Your task to perform on an android device: Show me popular games on the Play Store Image 0: 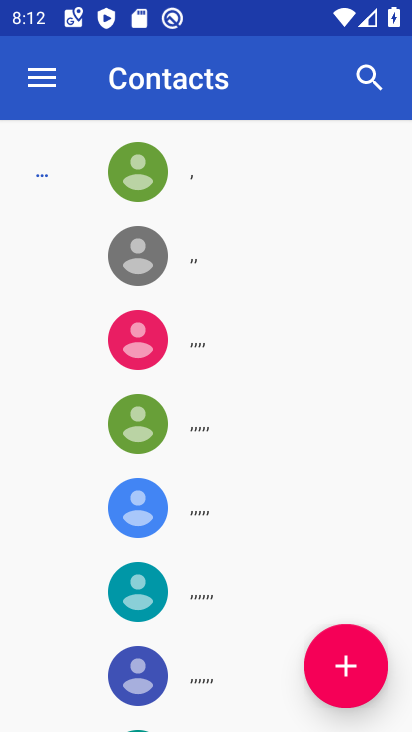
Step 0: press home button
Your task to perform on an android device: Show me popular games on the Play Store Image 1: 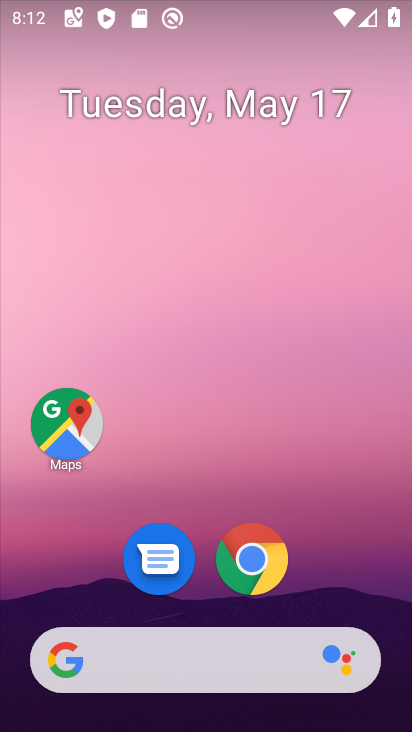
Step 1: drag from (169, 715) to (177, 215)
Your task to perform on an android device: Show me popular games on the Play Store Image 2: 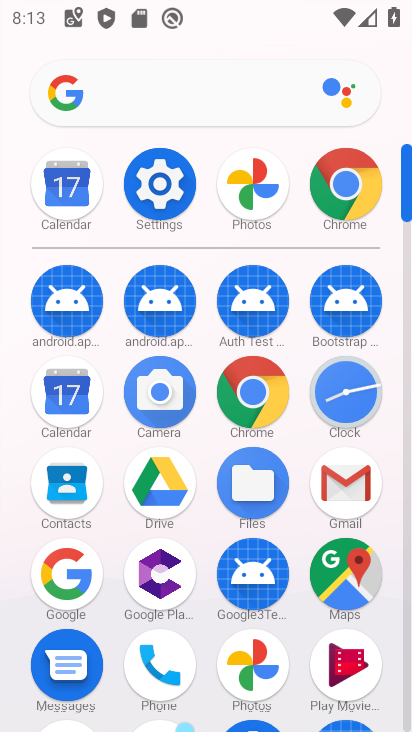
Step 2: drag from (267, 646) to (315, 268)
Your task to perform on an android device: Show me popular games on the Play Store Image 3: 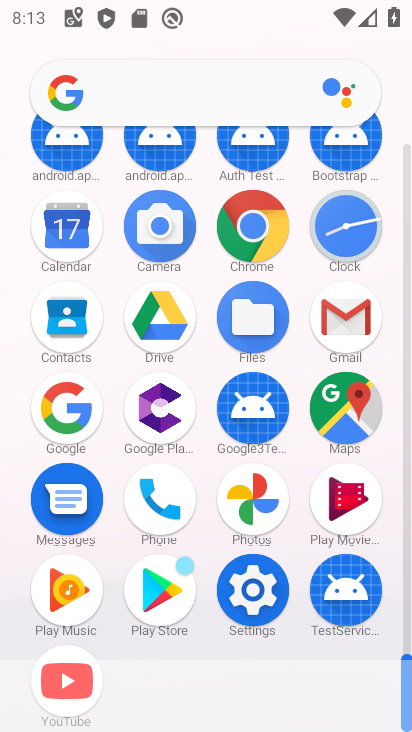
Step 3: click (163, 586)
Your task to perform on an android device: Show me popular games on the Play Store Image 4: 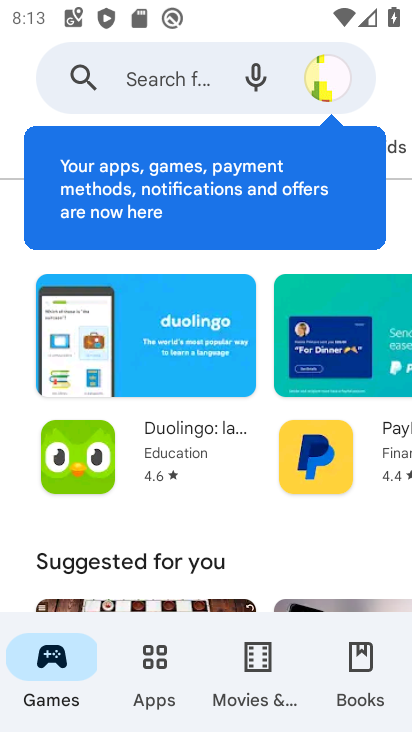
Step 4: task complete